Your task to perform on an android device: delete location history Image 0: 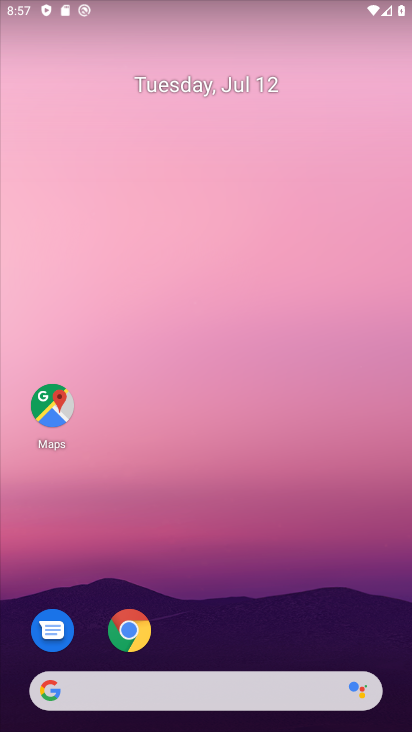
Step 0: drag from (267, 577) to (247, 137)
Your task to perform on an android device: delete location history Image 1: 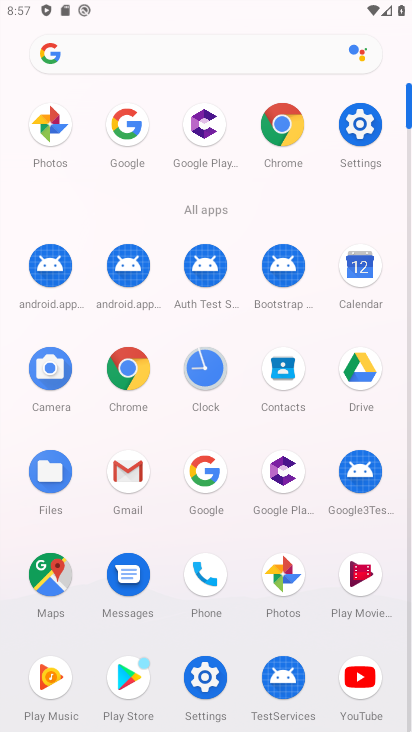
Step 1: click (51, 580)
Your task to perform on an android device: delete location history Image 2: 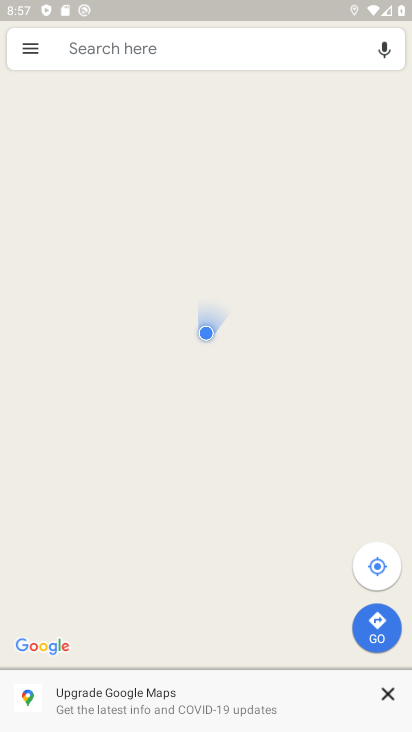
Step 2: click (29, 44)
Your task to perform on an android device: delete location history Image 3: 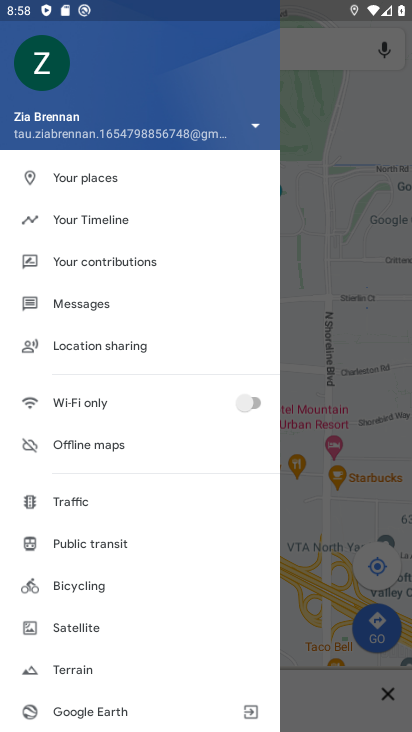
Step 3: drag from (75, 686) to (98, 321)
Your task to perform on an android device: delete location history Image 4: 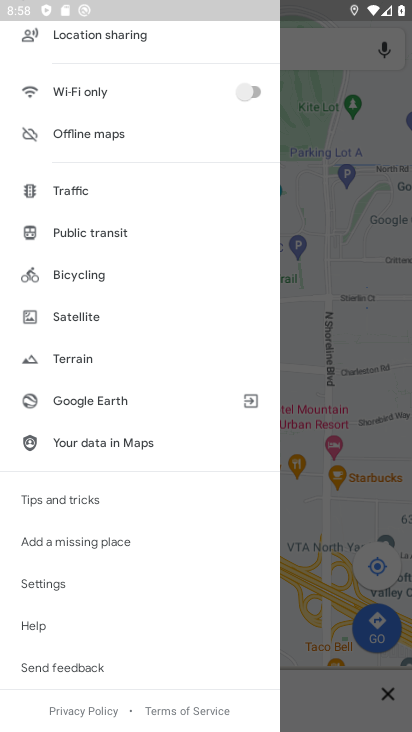
Step 4: click (52, 585)
Your task to perform on an android device: delete location history Image 5: 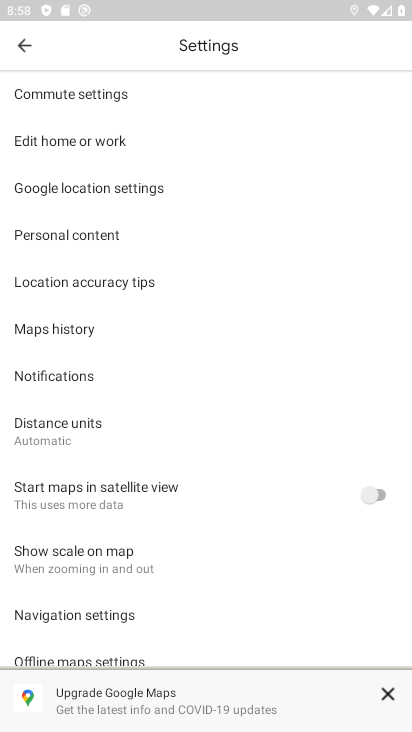
Step 5: click (69, 326)
Your task to perform on an android device: delete location history Image 6: 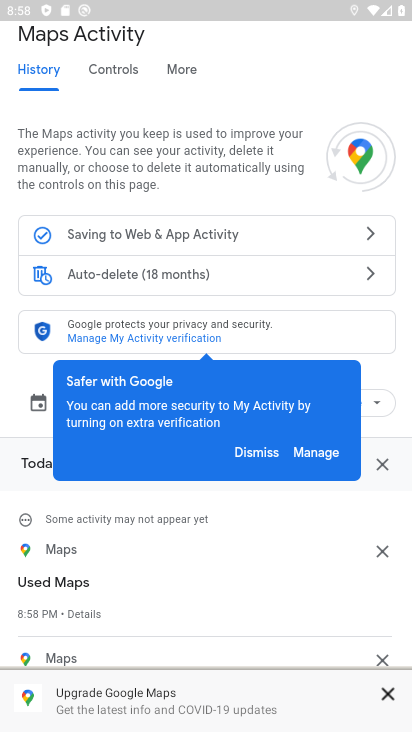
Step 6: click (268, 457)
Your task to perform on an android device: delete location history Image 7: 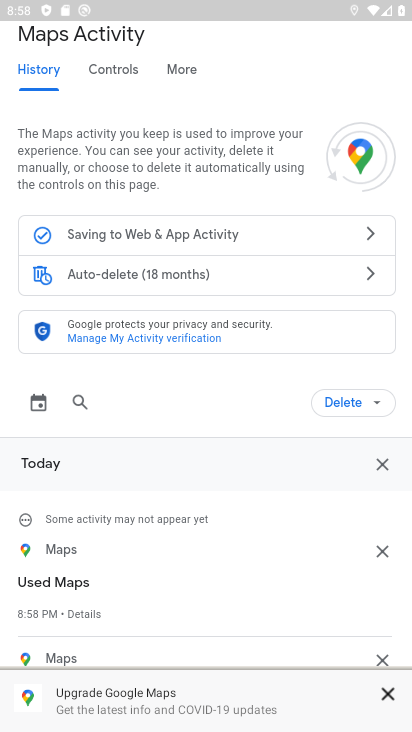
Step 7: click (366, 408)
Your task to perform on an android device: delete location history Image 8: 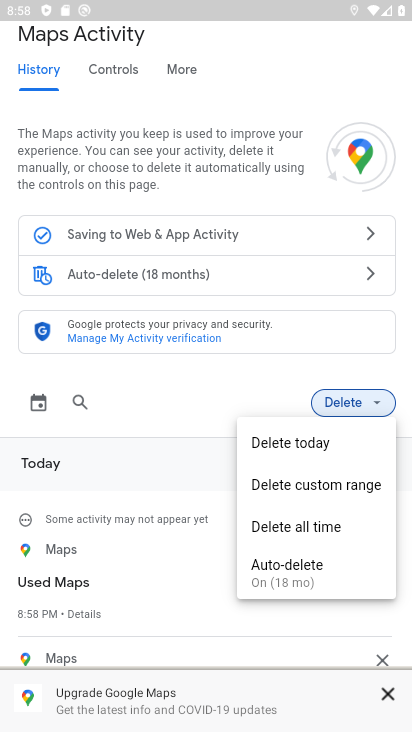
Step 8: click (288, 525)
Your task to perform on an android device: delete location history Image 9: 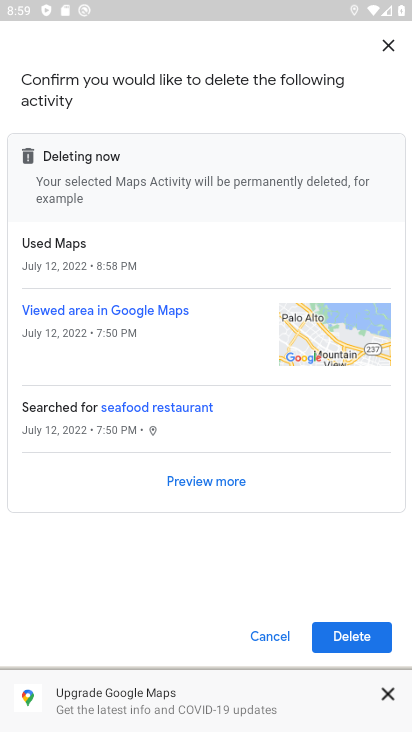
Step 9: click (363, 641)
Your task to perform on an android device: delete location history Image 10: 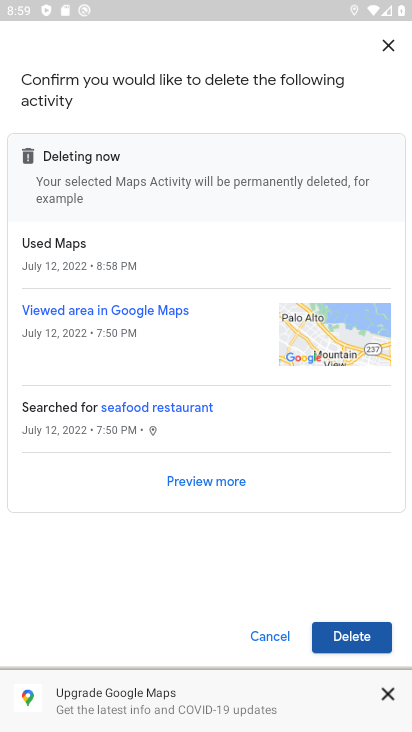
Step 10: click (357, 632)
Your task to perform on an android device: delete location history Image 11: 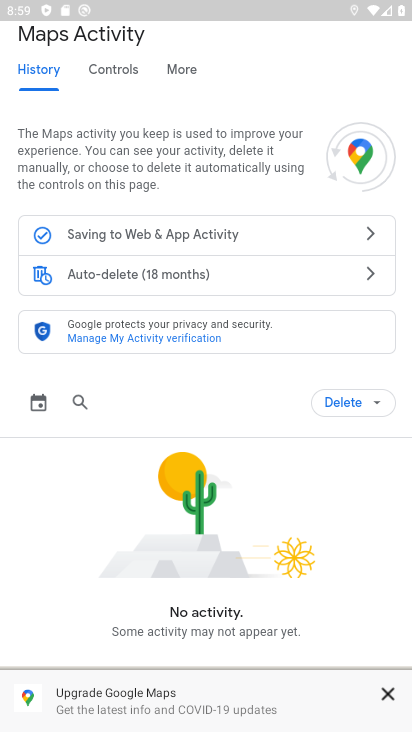
Step 11: task complete